Your task to perform on an android device: Open Yahoo.com Image 0: 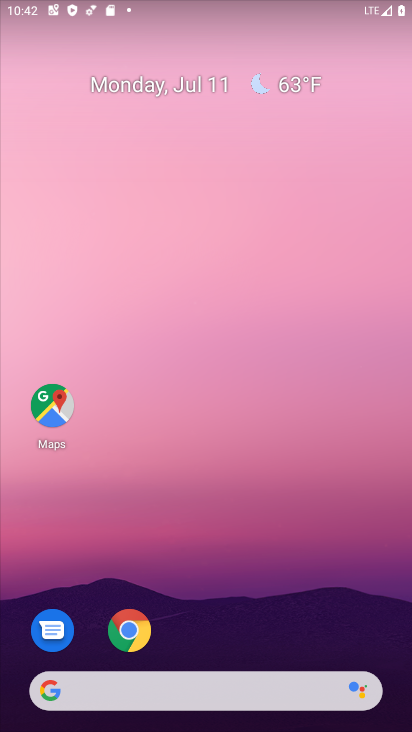
Step 0: click (130, 629)
Your task to perform on an android device: Open Yahoo.com Image 1: 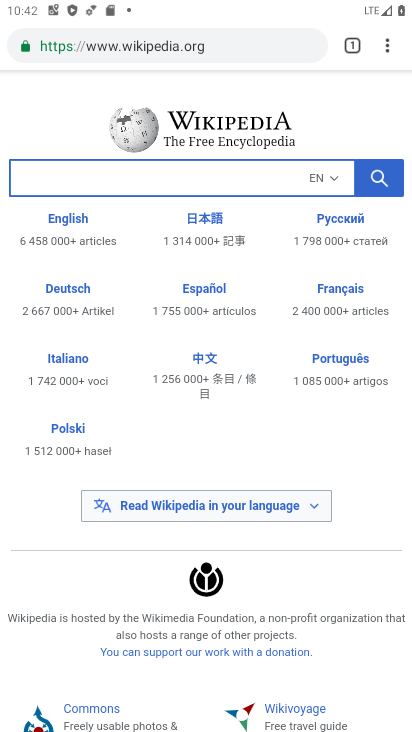
Step 1: click (229, 39)
Your task to perform on an android device: Open Yahoo.com Image 2: 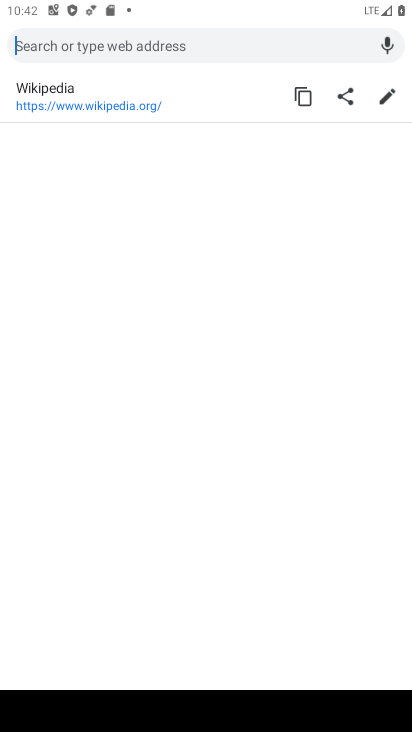
Step 2: type "yahoo.com"
Your task to perform on an android device: Open Yahoo.com Image 3: 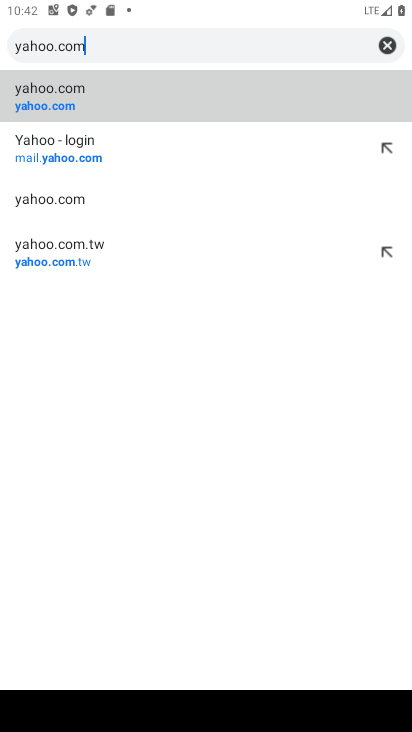
Step 3: click (64, 95)
Your task to perform on an android device: Open Yahoo.com Image 4: 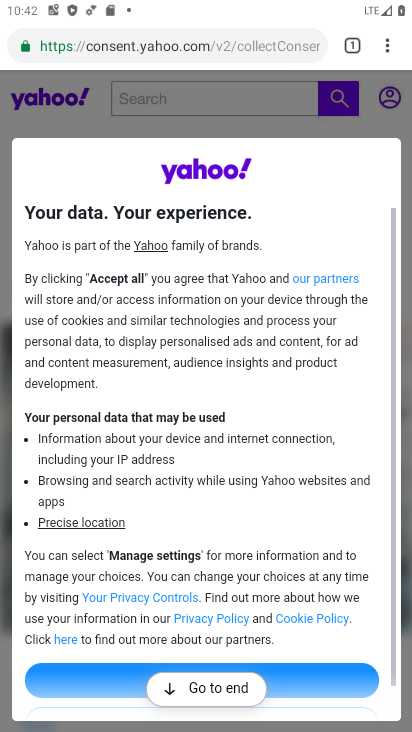
Step 4: click (224, 695)
Your task to perform on an android device: Open Yahoo.com Image 5: 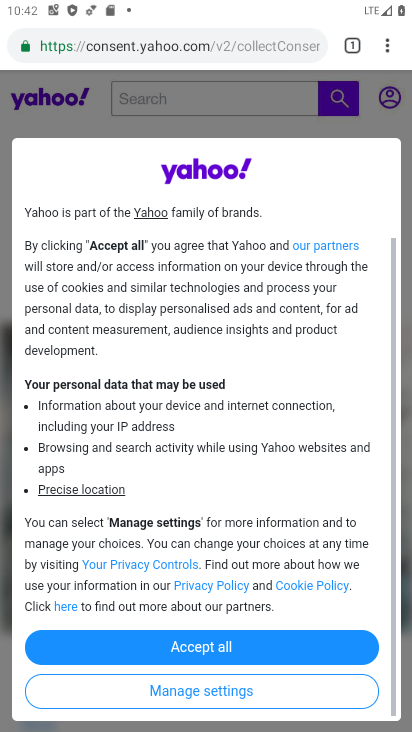
Step 5: click (207, 645)
Your task to perform on an android device: Open Yahoo.com Image 6: 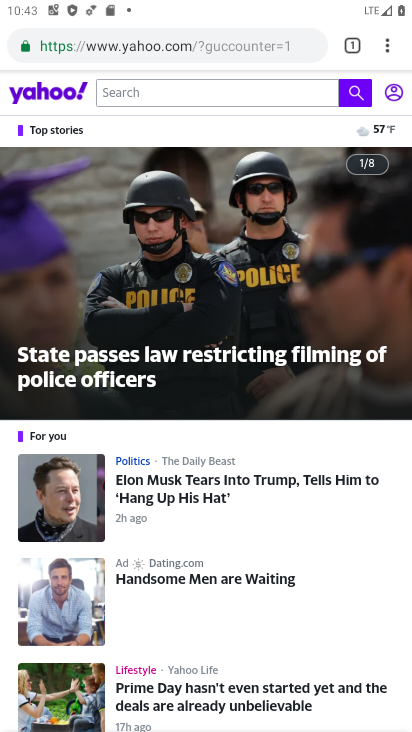
Step 6: task complete